Your task to perform on an android device: turn off location Image 0: 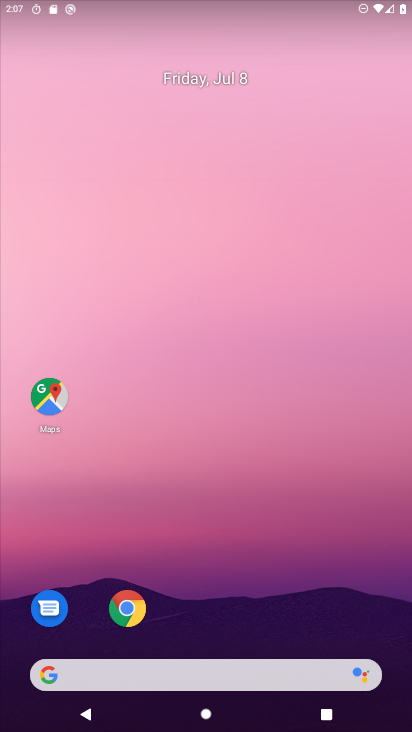
Step 0: drag from (271, 727) to (4, 341)
Your task to perform on an android device: turn off location Image 1: 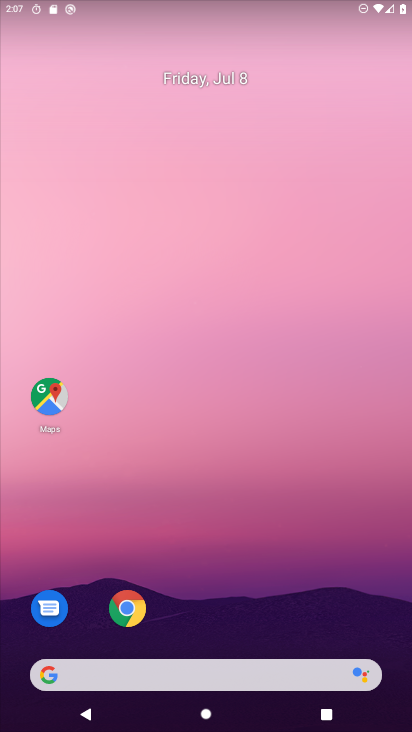
Step 1: drag from (255, 713) to (224, 513)
Your task to perform on an android device: turn off location Image 2: 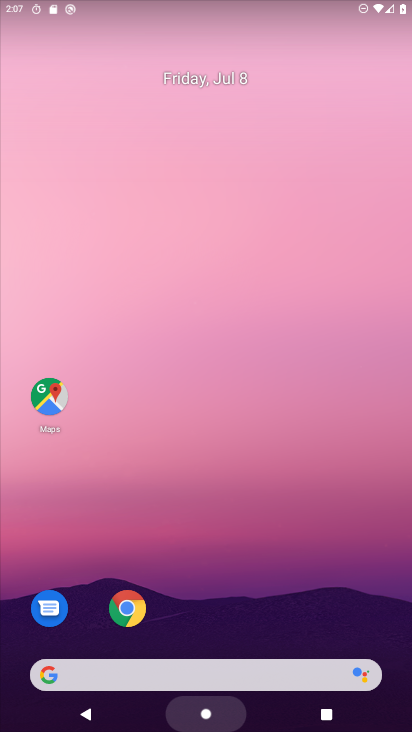
Step 2: drag from (220, 83) to (220, 27)
Your task to perform on an android device: turn off location Image 3: 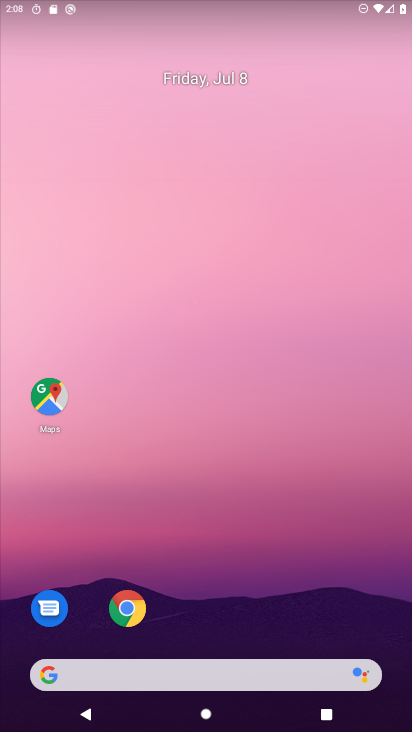
Step 3: drag from (286, 696) to (243, 11)
Your task to perform on an android device: turn off location Image 4: 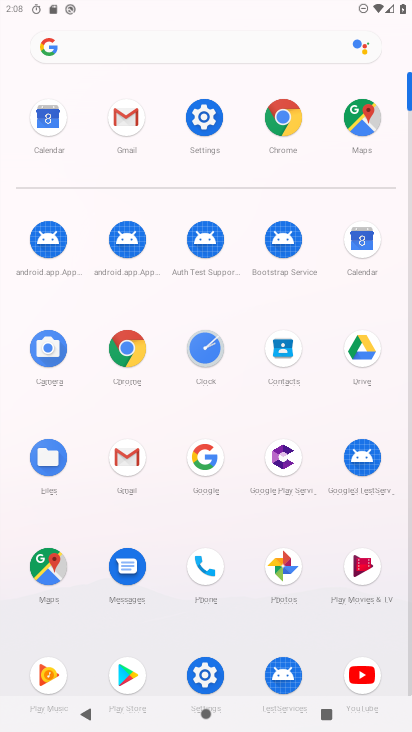
Step 4: click (208, 122)
Your task to perform on an android device: turn off location Image 5: 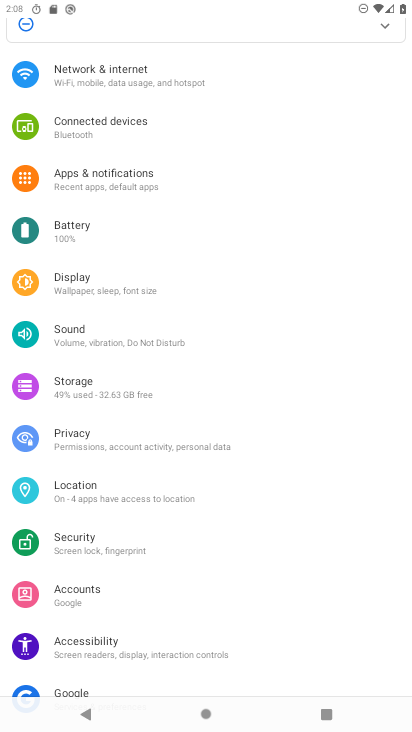
Step 5: click (73, 486)
Your task to perform on an android device: turn off location Image 6: 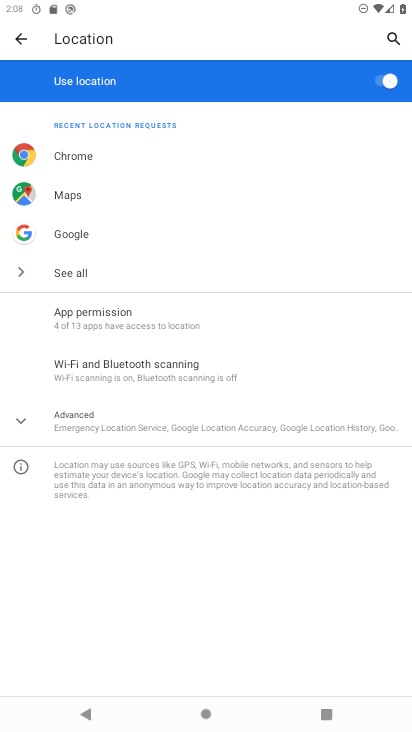
Step 6: click (383, 78)
Your task to perform on an android device: turn off location Image 7: 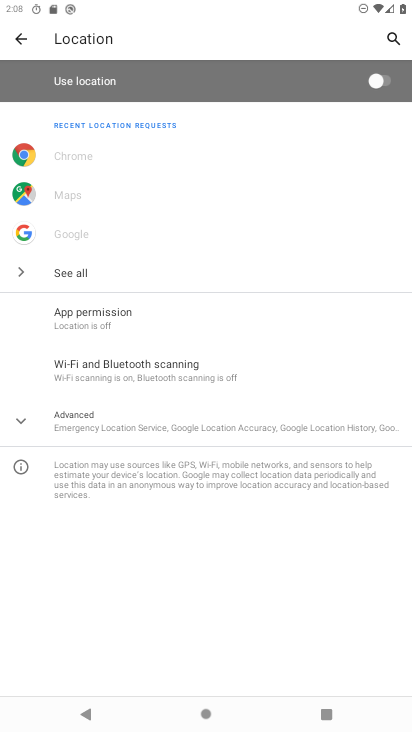
Step 7: task complete